Your task to perform on an android device: Open Google Image 0: 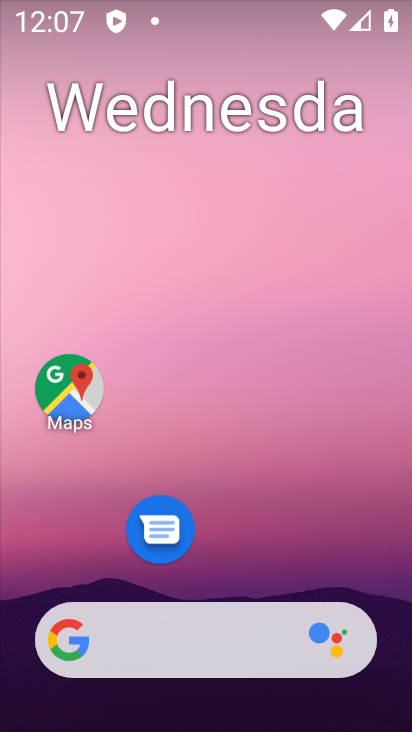
Step 0: click (215, 608)
Your task to perform on an android device: Open Google Image 1: 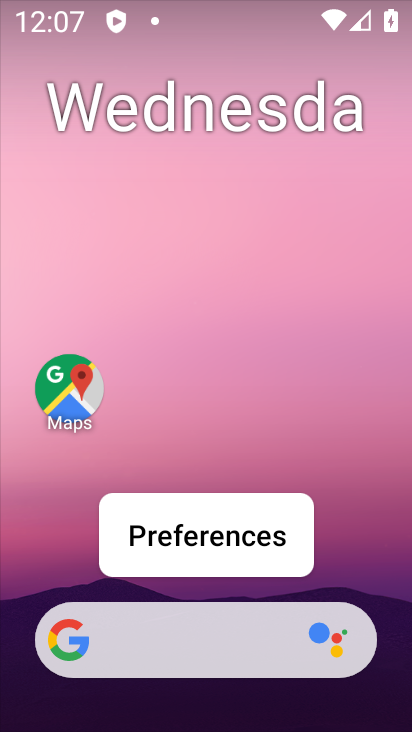
Step 1: click (191, 637)
Your task to perform on an android device: Open Google Image 2: 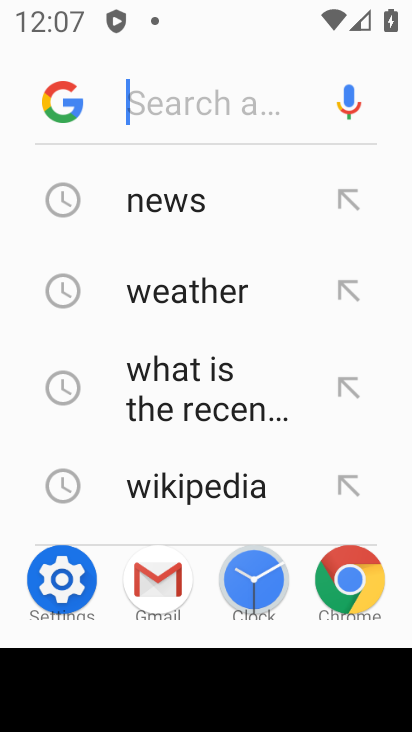
Step 2: task complete